Your task to perform on an android device: delete browsing data in the chrome app Image 0: 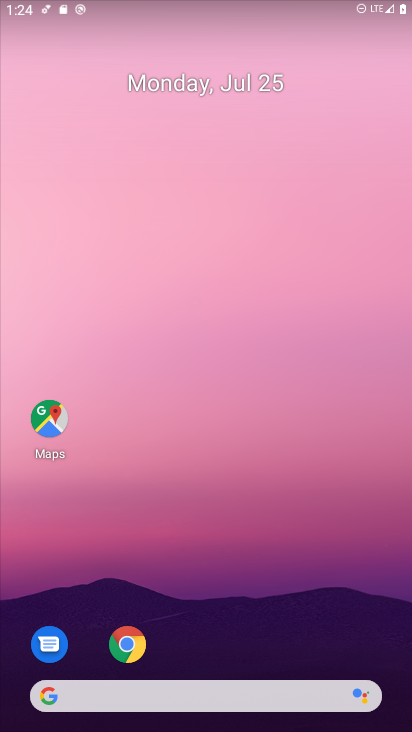
Step 0: press home button
Your task to perform on an android device: delete browsing data in the chrome app Image 1: 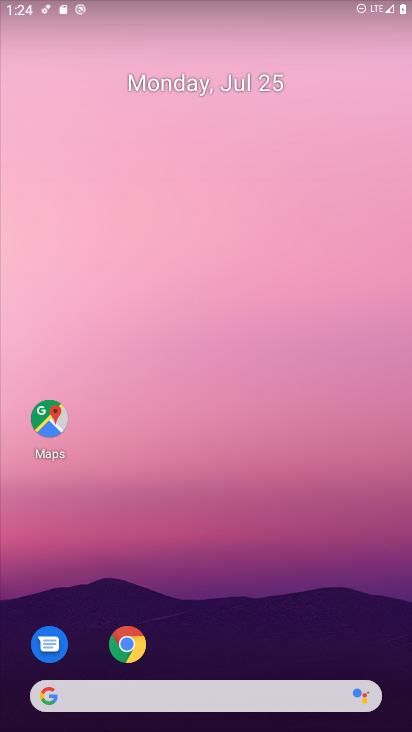
Step 1: drag from (226, 728) to (209, 248)
Your task to perform on an android device: delete browsing data in the chrome app Image 2: 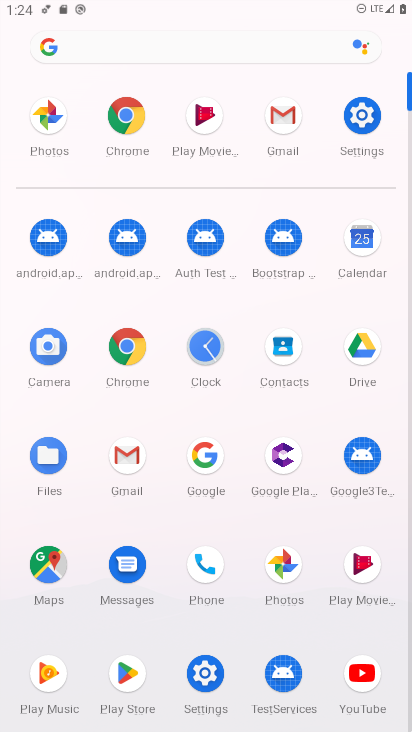
Step 2: click (125, 342)
Your task to perform on an android device: delete browsing data in the chrome app Image 3: 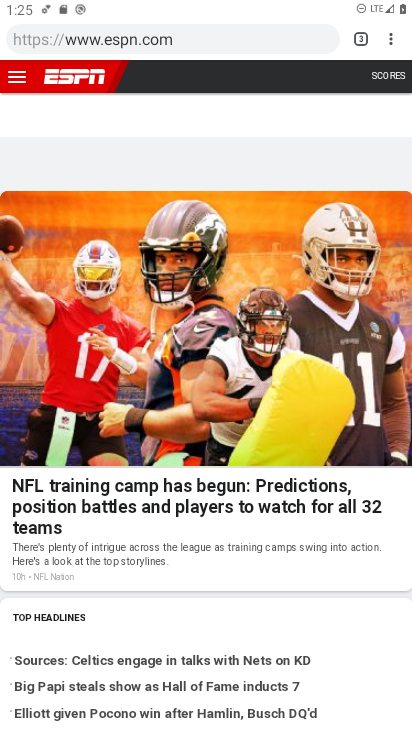
Step 3: click (392, 40)
Your task to perform on an android device: delete browsing data in the chrome app Image 4: 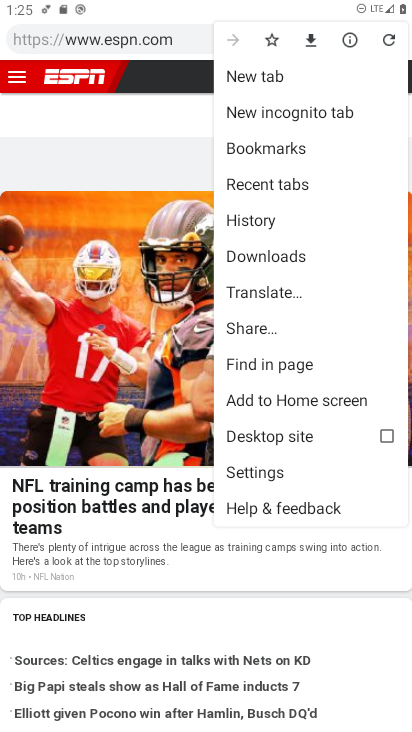
Step 4: click (257, 221)
Your task to perform on an android device: delete browsing data in the chrome app Image 5: 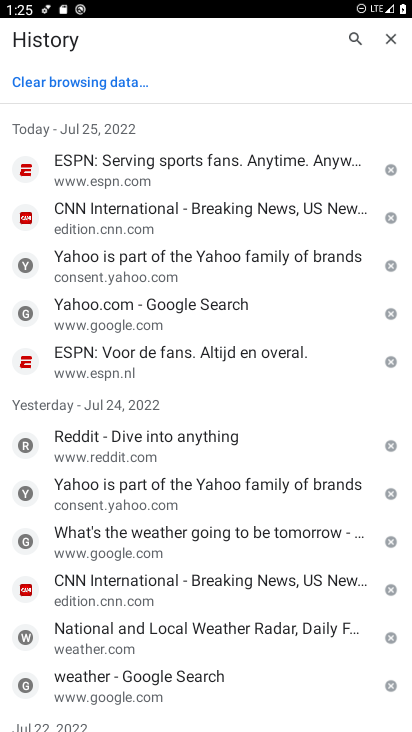
Step 5: click (80, 87)
Your task to perform on an android device: delete browsing data in the chrome app Image 6: 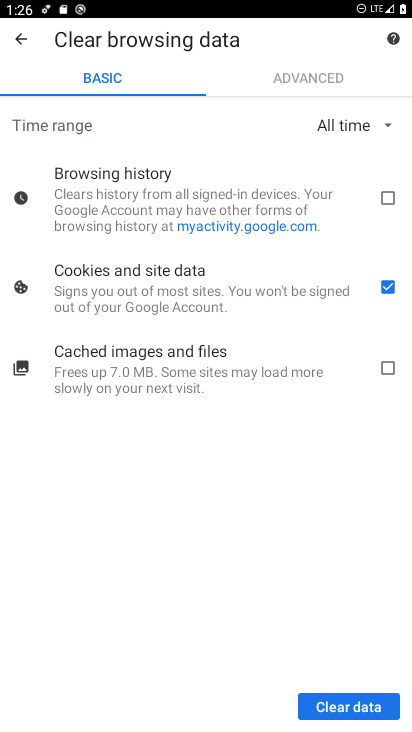
Step 6: click (391, 288)
Your task to perform on an android device: delete browsing data in the chrome app Image 7: 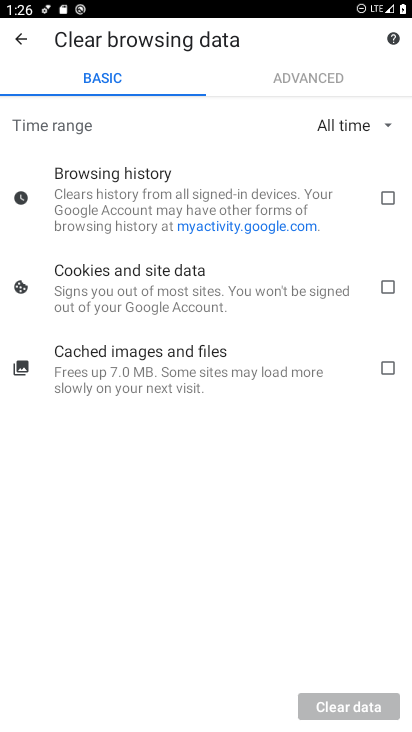
Step 7: click (389, 191)
Your task to perform on an android device: delete browsing data in the chrome app Image 8: 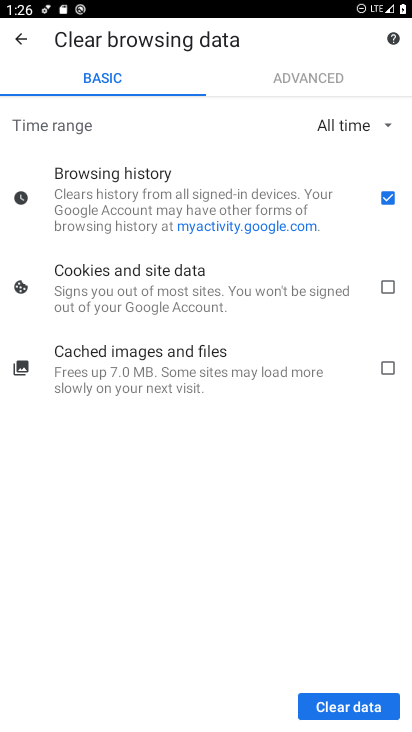
Step 8: click (355, 705)
Your task to perform on an android device: delete browsing data in the chrome app Image 9: 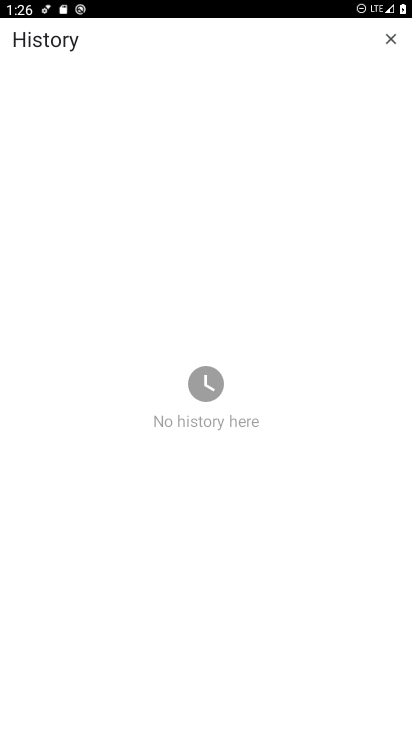
Step 9: task complete